Your task to perform on an android device: Show me recent news Image 0: 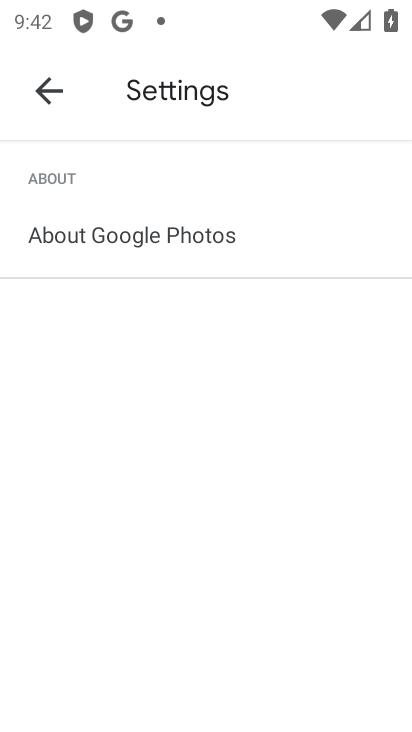
Step 0: press home button
Your task to perform on an android device: Show me recent news Image 1: 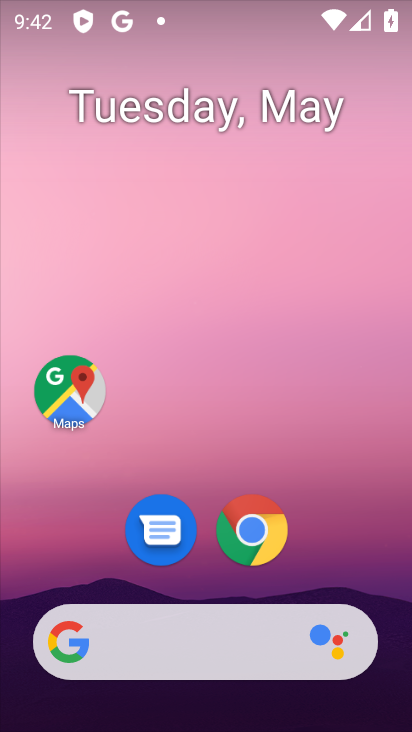
Step 1: click (252, 535)
Your task to perform on an android device: Show me recent news Image 2: 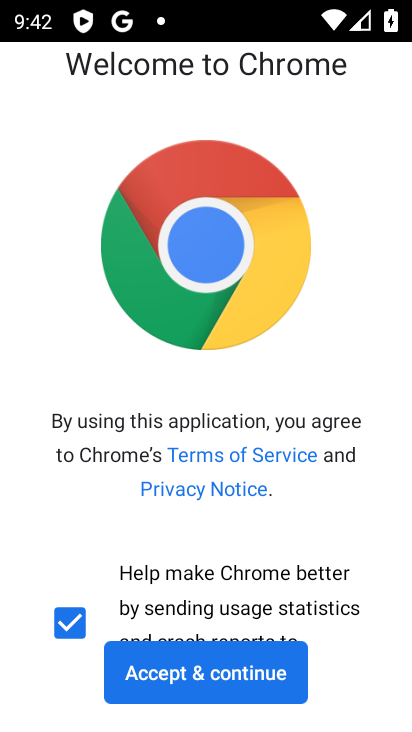
Step 2: click (249, 684)
Your task to perform on an android device: Show me recent news Image 3: 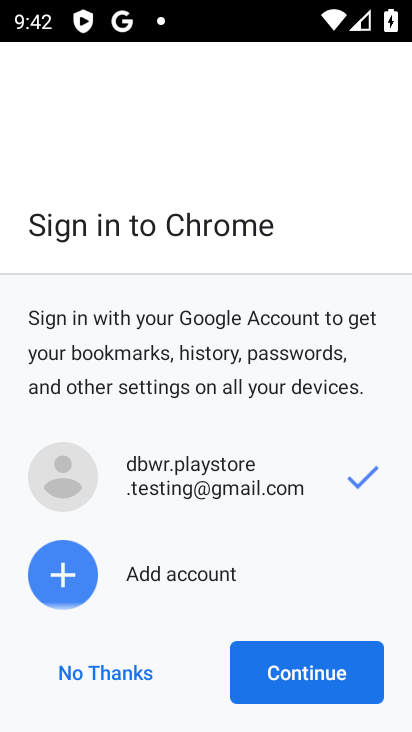
Step 3: click (293, 687)
Your task to perform on an android device: Show me recent news Image 4: 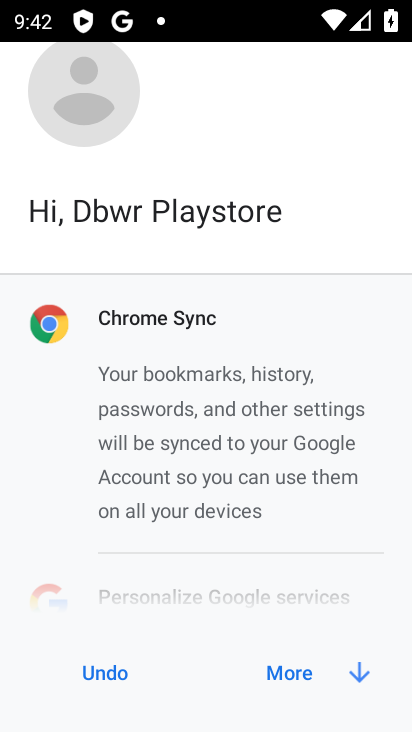
Step 4: click (281, 679)
Your task to perform on an android device: Show me recent news Image 5: 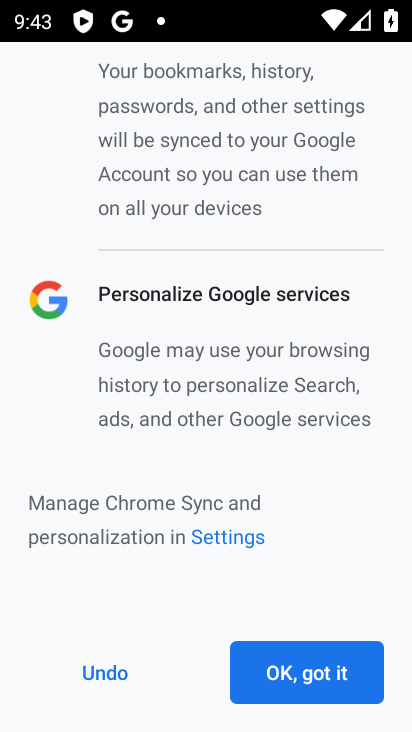
Step 5: click (320, 680)
Your task to perform on an android device: Show me recent news Image 6: 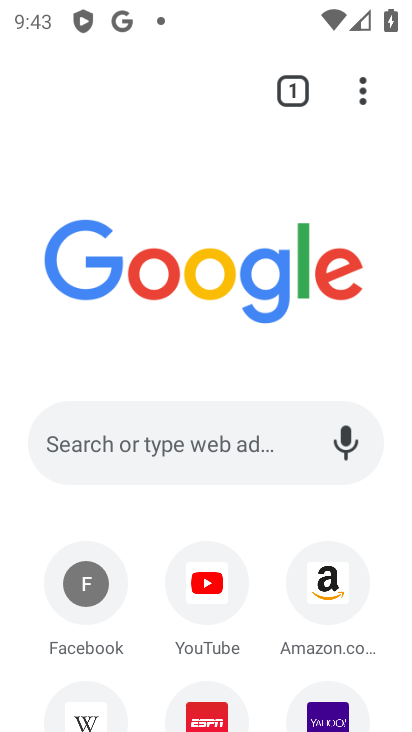
Step 6: click (150, 439)
Your task to perform on an android device: Show me recent news Image 7: 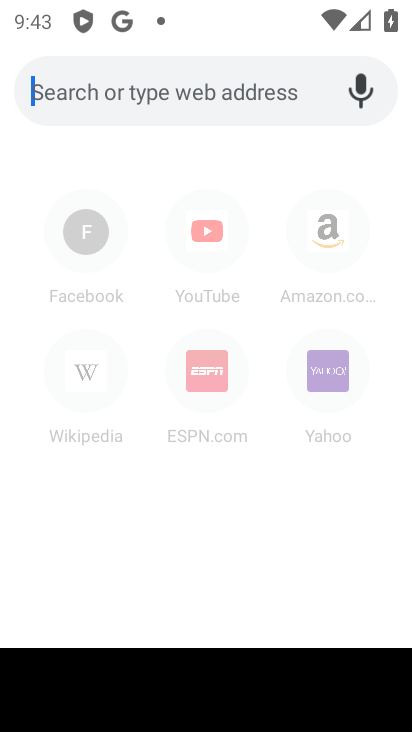
Step 7: type "recent news"
Your task to perform on an android device: Show me recent news Image 8: 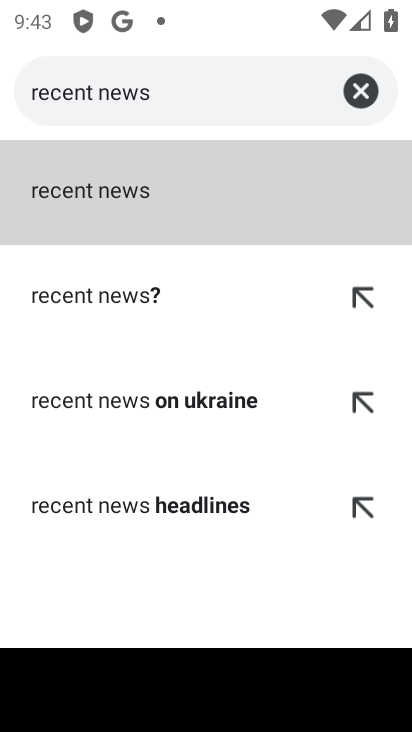
Step 8: click (120, 199)
Your task to perform on an android device: Show me recent news Image 9: 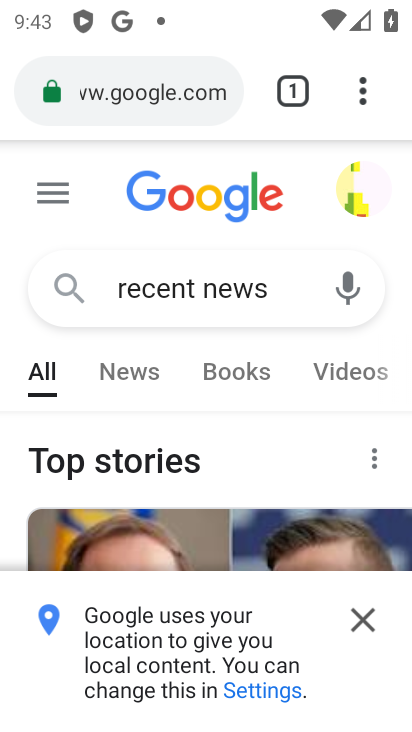
Step 9: task complete